Your task to perform on an android device: Open notification settings Image 0: 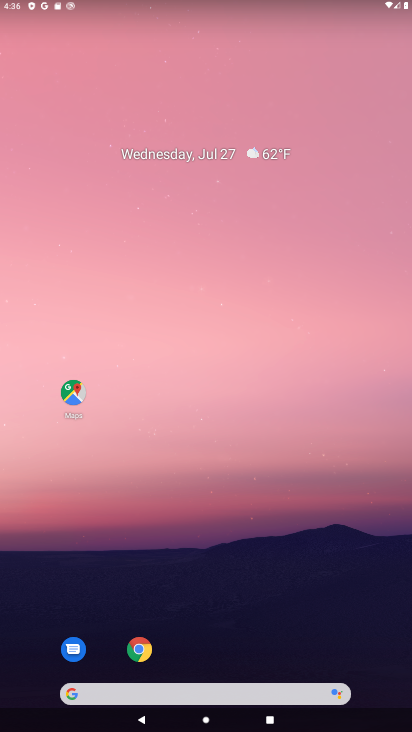
Step 0: drag from (262, 589) to (235, 159)
Your task to perform on an android device: Open notification settings Image 1: 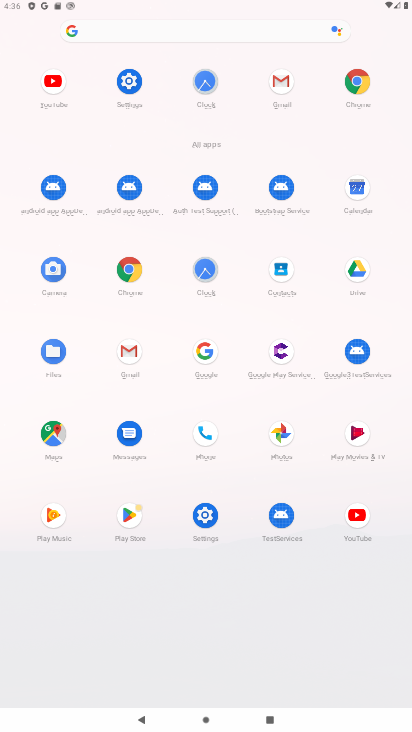
Step 1: click (198, 507)
Your task to perform on an android device: Open notification settings Image 2: 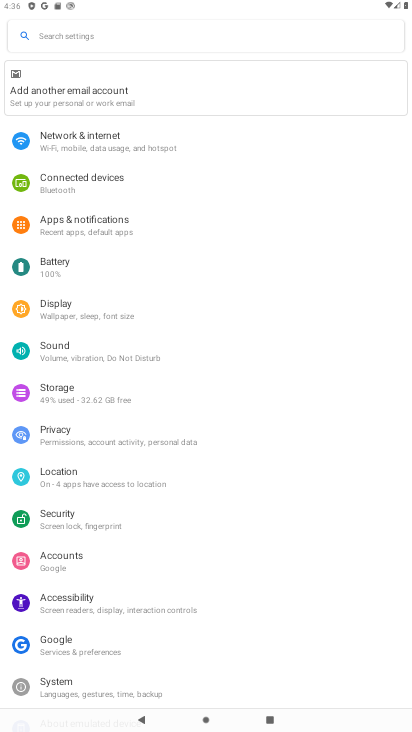
Step 2: click (102, 222)
Your task to perform on an android device: Open notification settings Image 3: 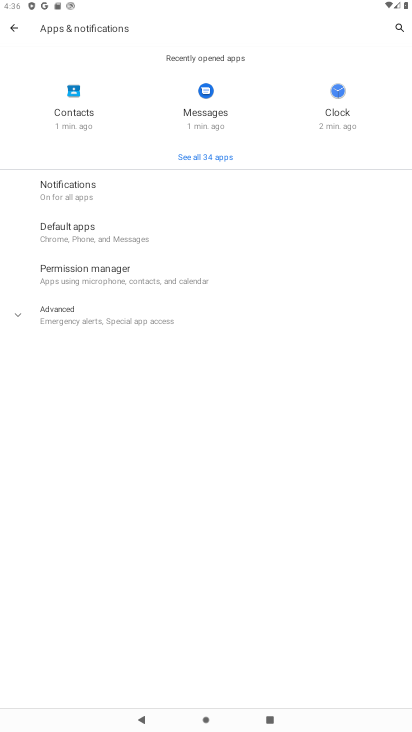
Step 3: task complete